Your task to perform on an android device: When is my next appointment? Image 0: 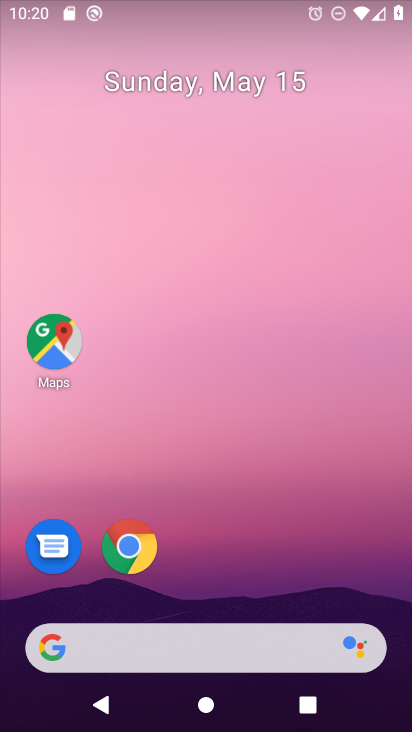
Step 0: drag from (252, 545) to (300, 83)
Your task to perform on an android device: When is my next appointment? Image 1: 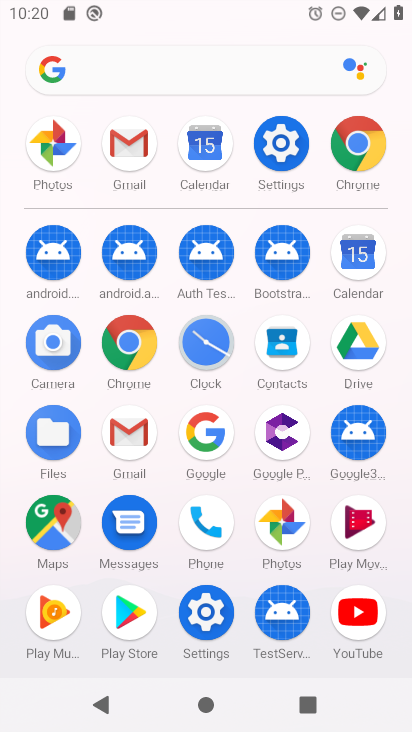
Step 1: click (353, 244)
Your task to perform on an android device: When is my next appointment? Image 2: 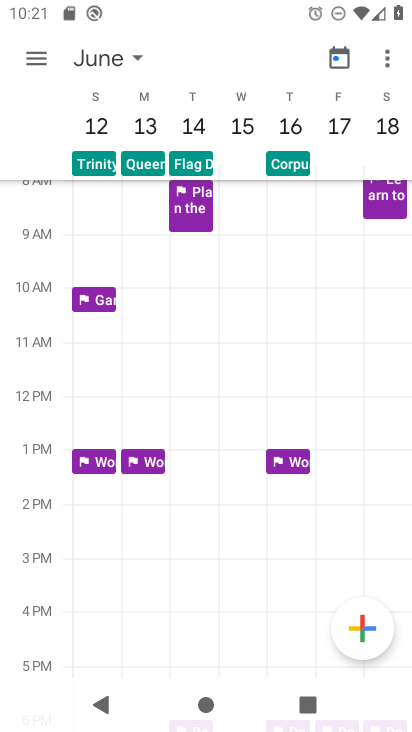
Step 2: click (91, 59)
Your task to perform on an android device: When is my next appointment? Image 3: 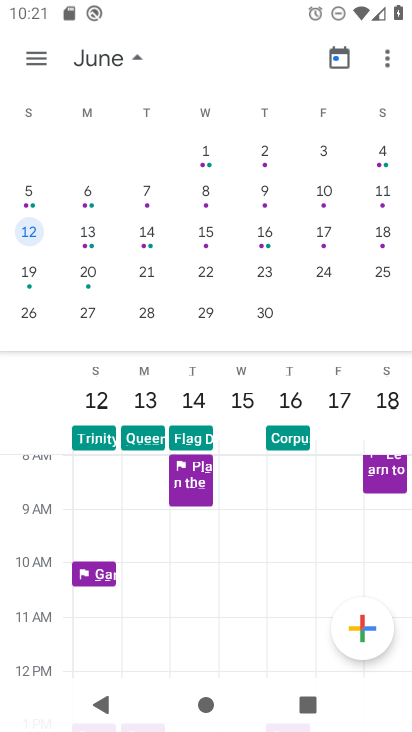
Step 3: click (8, 262)
Your task to perform on an android device: When is my next appointment? Image 4: 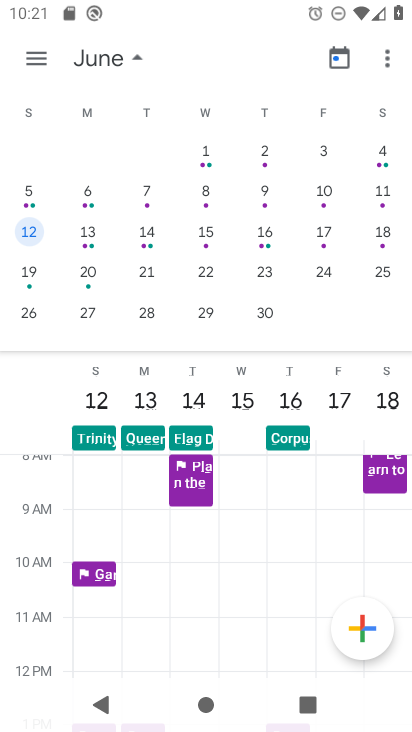
Step 4: drag from (52, 254) to (409, 247)
Your task to perform on an android device: When is my next appointment? Image 5: 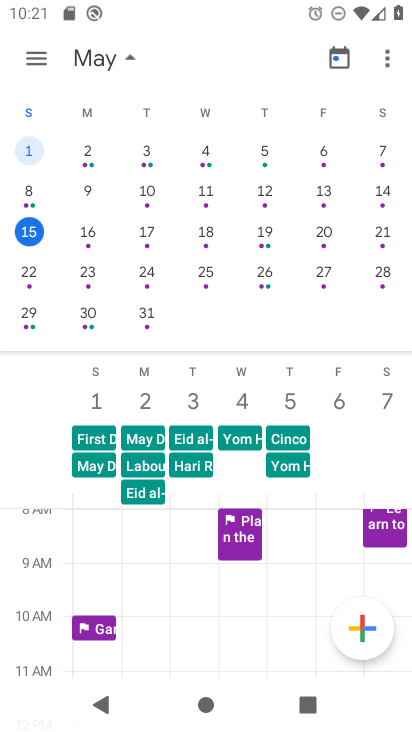
Step 5: click (23, 231)
Your task to perform on an android device: When is my next appointment? Image 6: 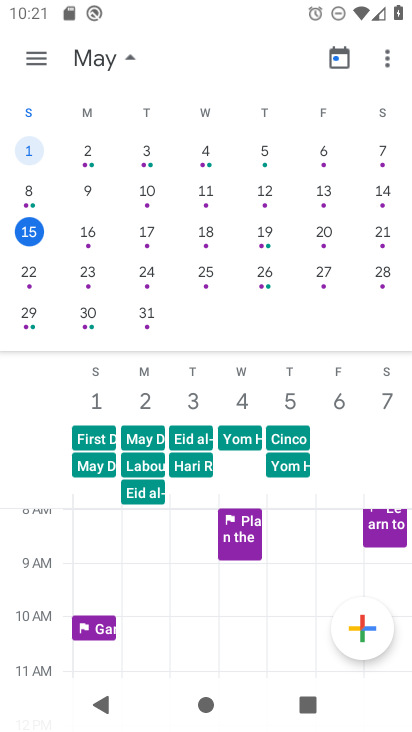
Step 6: click (42, 60)
Your task to perform on an android device: When is my next appointment? Image 7: 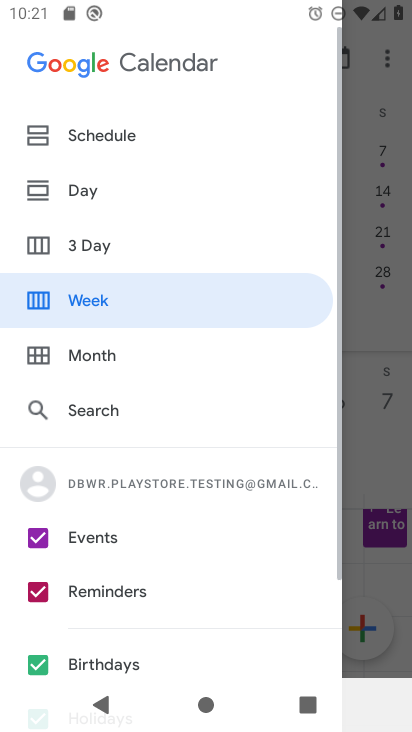
Step 7: click (74, 178)
Your task to perform on an android device: When is my next appointment? Image 8: 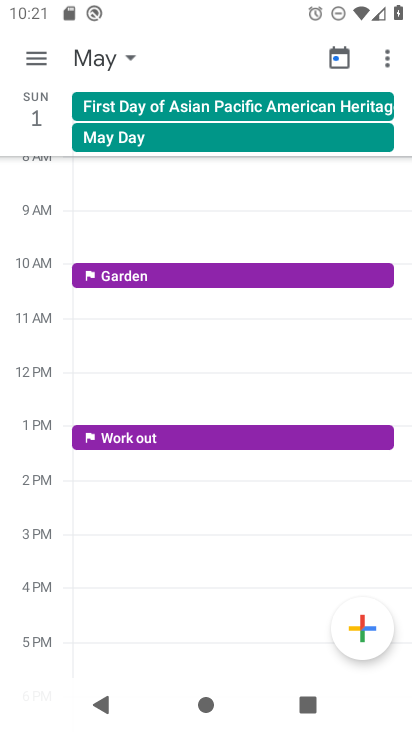
Step 8: click (97, 54)
Your task to perform on an android device: When is my next appointment? Image 9: 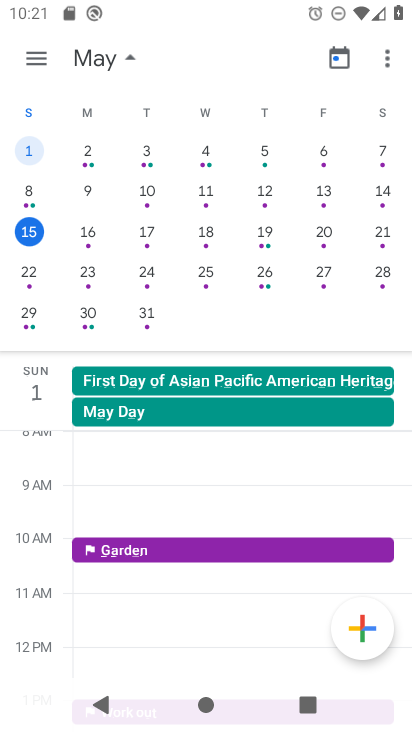
Step 9: click (30, 241)
Your task to perform on an android device: When is my next appointment? Image 10: 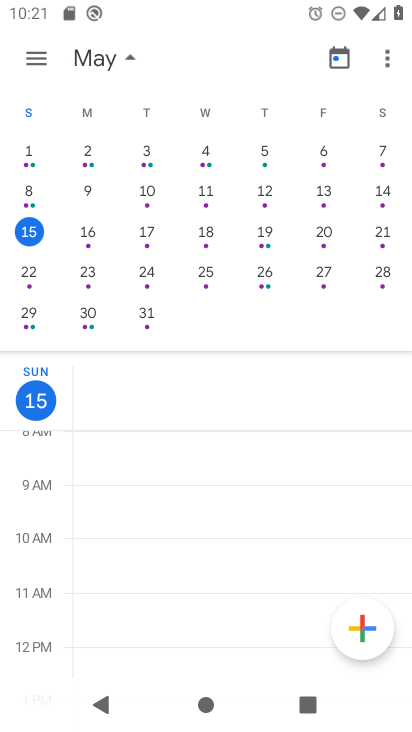
Step 10: drag from (193, 530) to (305, 73)
Your task to perform on an android device: When is my next appointment? Image 11: 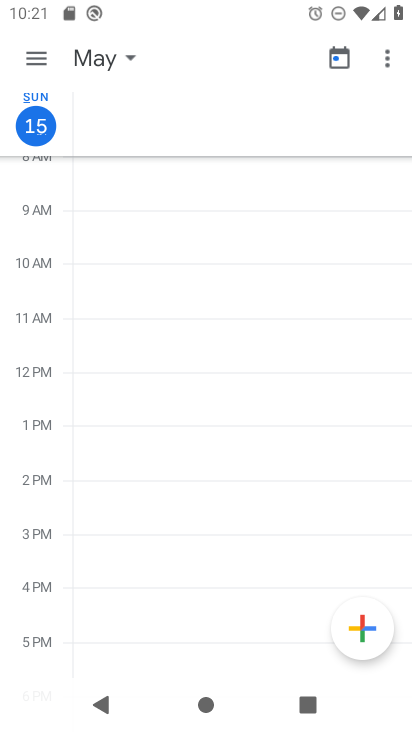
Step 11: drag from (212, 488) to (308, 107)
Your task to perform on an android device: When is my next appointment? Image 12: 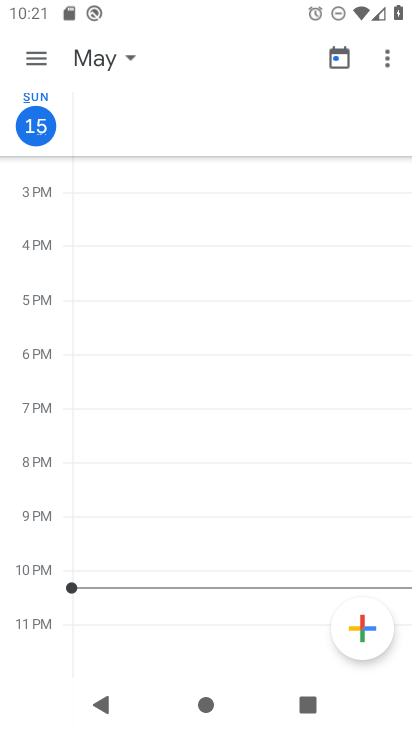
Step 12: drag from (223, 565) to (317, 206)
Your task to perform on an android device: When is my next appointment? Image 13: 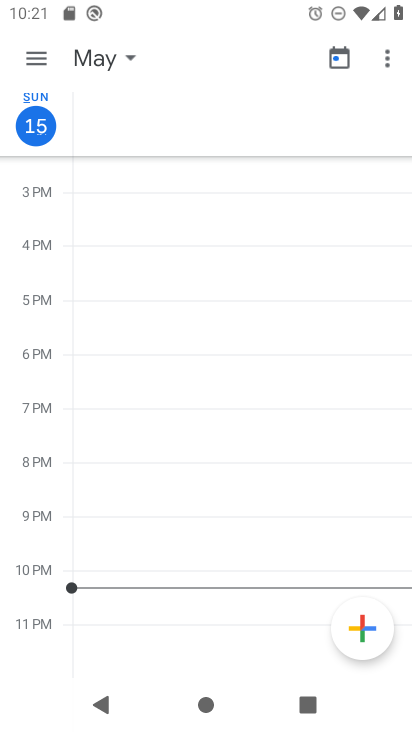
Step 13: drag from (249, 594) to (298, 171)
Your task to perform on an android device: When is my next appointment? Image 14: 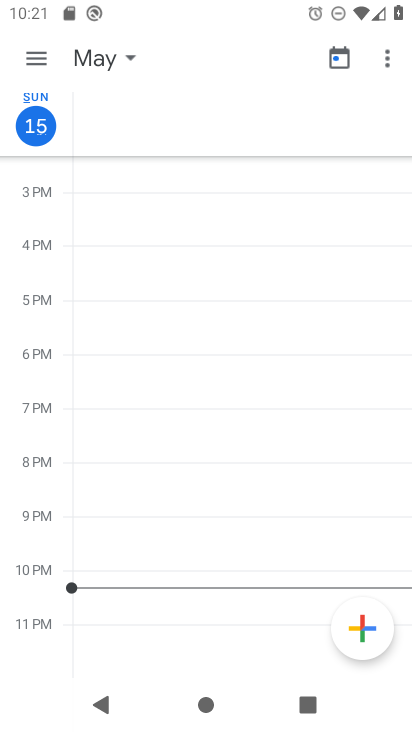
Step 14: click (27, 68)
Your task to perform on an android device: When is my next appointment? Image 15: 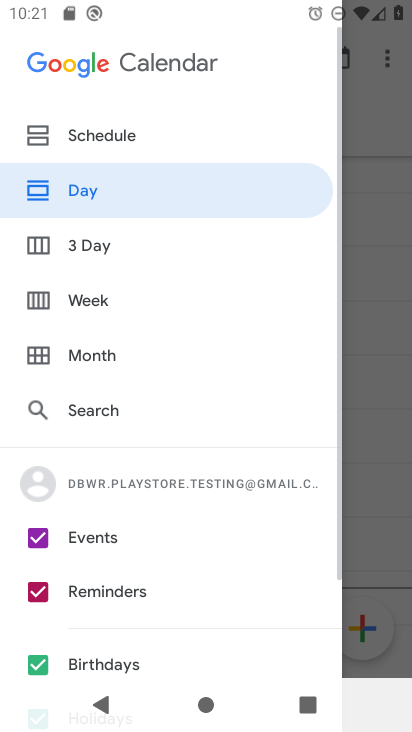
Step 15: click (87, 247)
Your task to perform on an android device: When is my next appointment? Image 16: 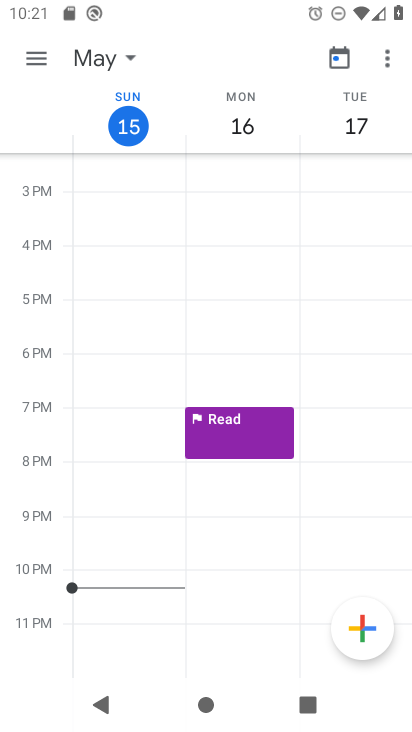
Step 16: task complete